Your task to perform on an android device: manage bookmarks in the chrome app Image 0: 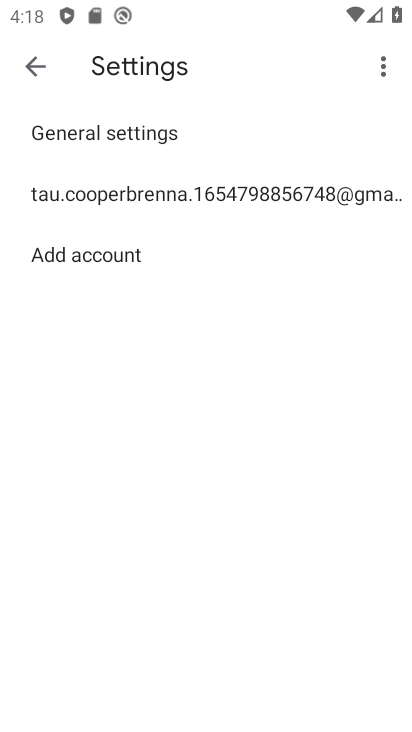
Step 0: press home button
Your task to perform on an android device: manage bookmarks in the chrome app Image 1: 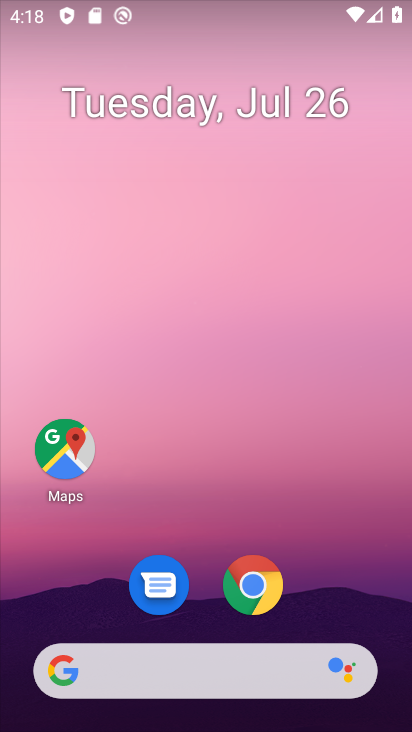
Step 1: click (259, 585)
Your task to perform on an android device: manage bookmarks in the chrome app Image 2: 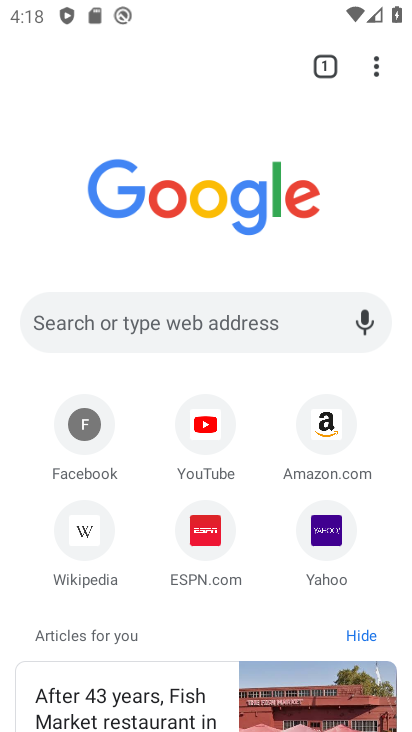
Step 2: click (373, 70)
Your task to perform on an android device: manage bookmarks in the chrome app Image 3: 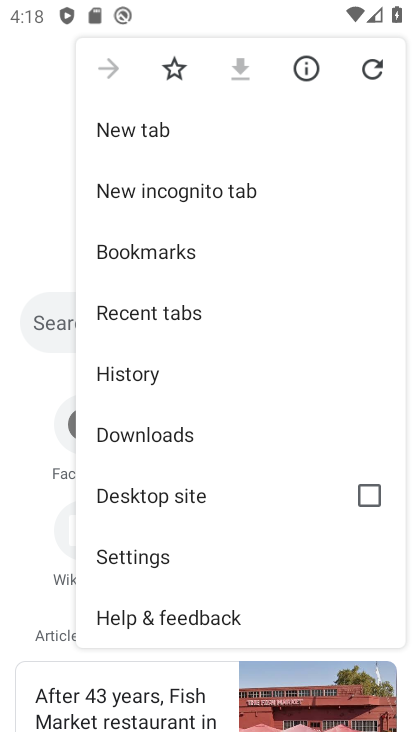
Step 3: click (183, 251)
Your task to perform on an android device: manage bookmarks in the chrome app Image 4: 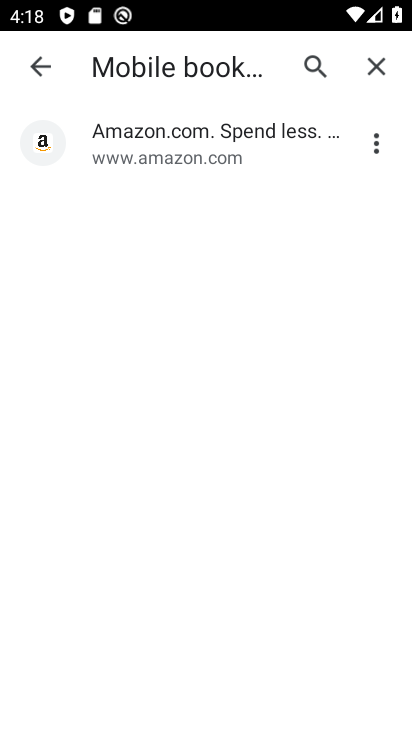
Step 4: click (375, 141)
Your task to perform on an android device: manage bookmarks in the chrome app Image 5: 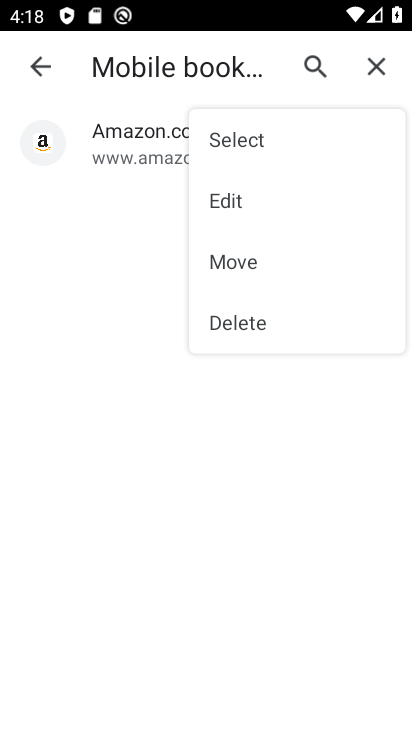
Step 5: click (259, 200)
Your task to perform on an android device: manage bookmarks in the chrome app Image 6: 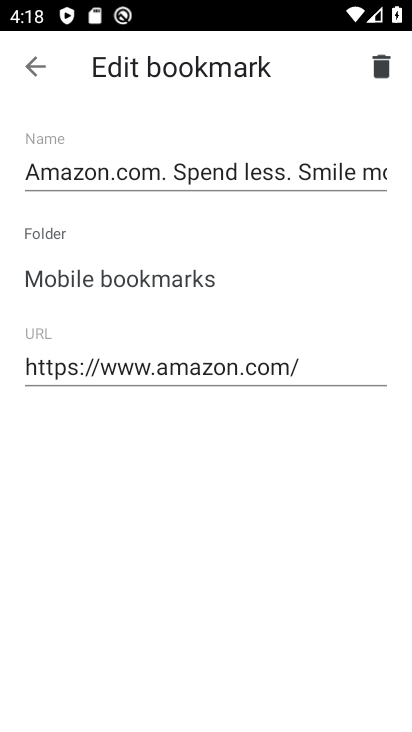
Step 6: task complete